Your task to perform on an android device: allow cookies in the chrome app Image 0: 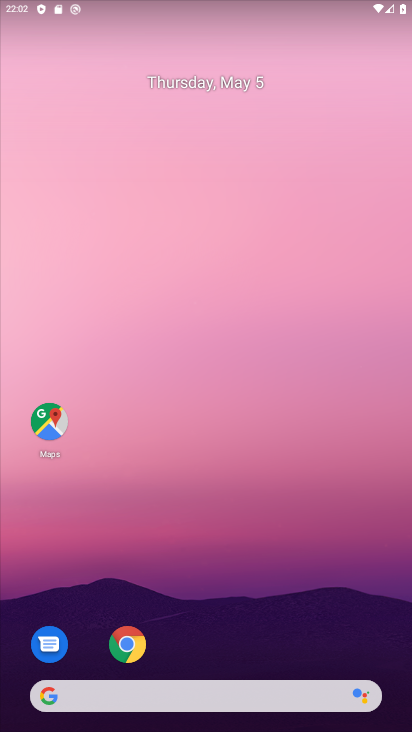
Step 0: click (123, 641)
Your task to perform on an android device: allow cookies in the chrome app Image 1: 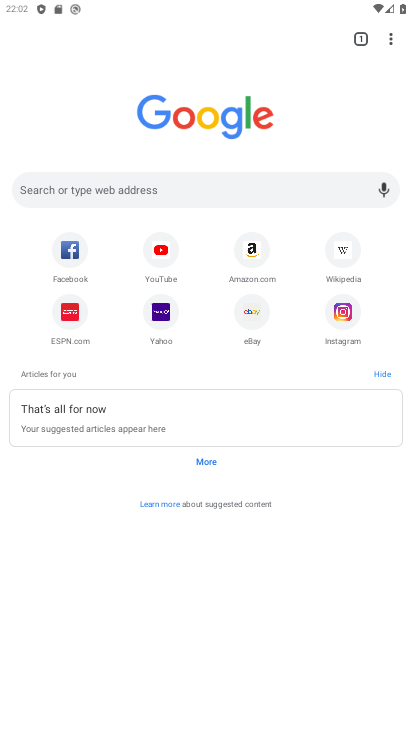
Step 1: click (387, 41)
Your task to perform on an android device: allow cookies in the chrome app Image 2: 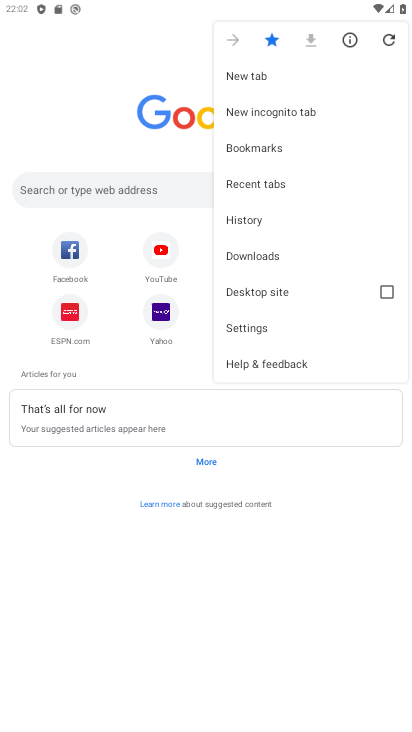
Step 2: click (233, 322)
Your task to perform on an android device: allow cookies in the chrome app Image 3: 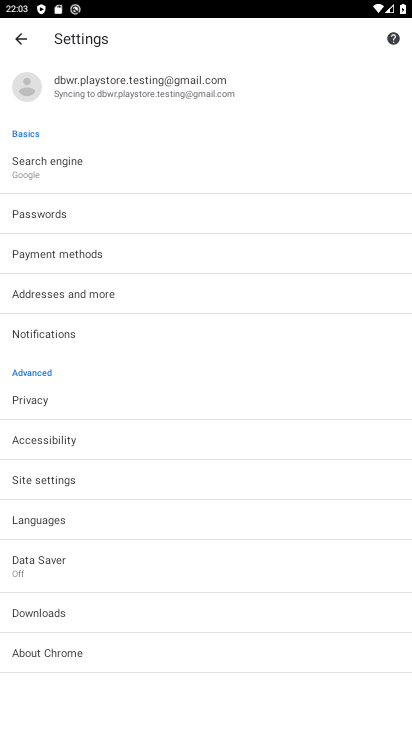
Step 3: click (30, 476)
Your task to perform on an android device: allow cookies in the chrome app Image 4: 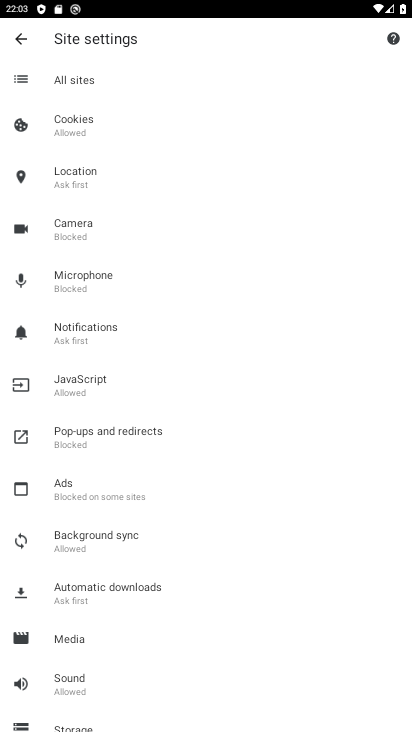
Step 4: click (91, 128)
Your task to perform on an android device: allow cookies in the chrome app Image 5: 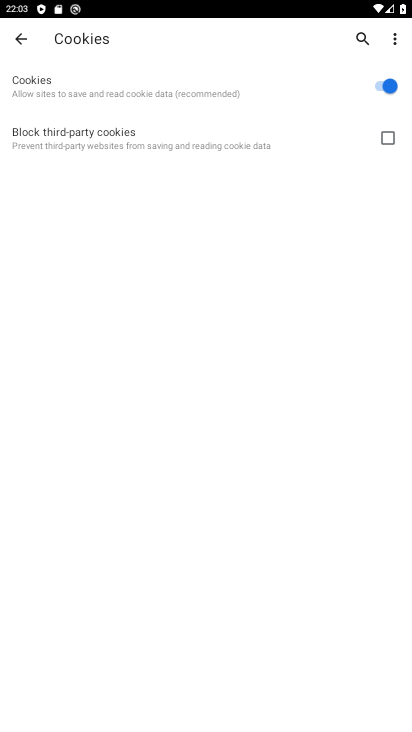
Step 5: task complete